Your task to perform on an android device: delete a single message in the gmail app Image 0: 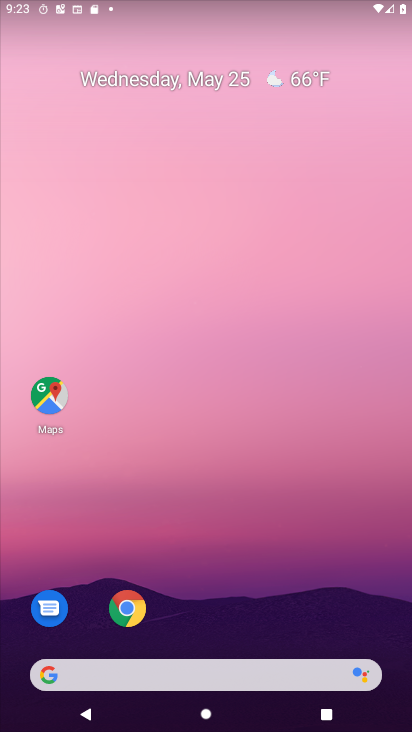
Step 0: drag from (264, 720) to (254, 98)
Your task to perform on an android device: delete a single message in the gmail app Image 1: 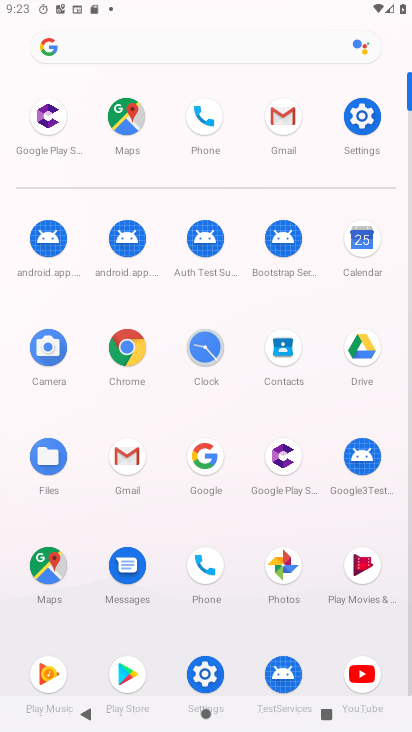
Step 1: click (117, 452)
Your task to perform on an android device: delete a single message in the gmail app Image 2: 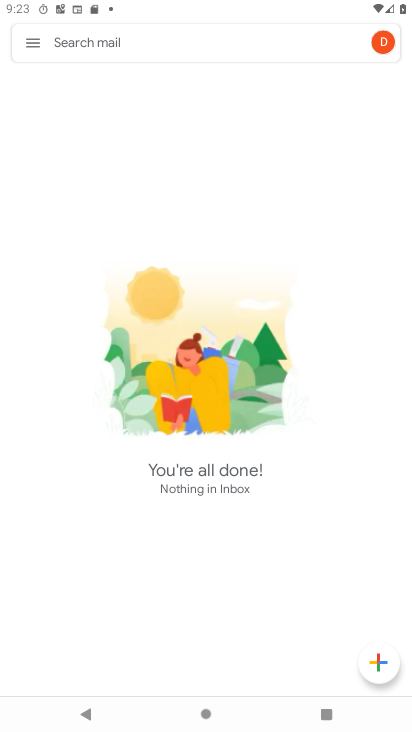
Step 2: task complete